Your task to perform on an android device: Go to Google Image 0: 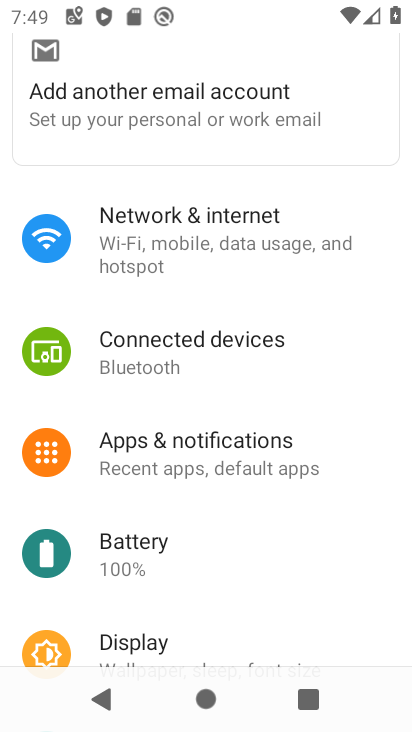
Step 0: press home button
Your task to perform on an android device: Go to Google Image 1: 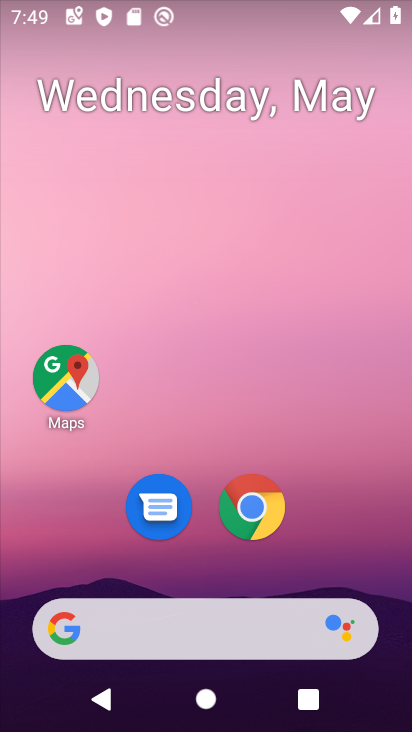
Step 1: drag from (199, 542) to (192, 191)
Your task to perform on an android device: Go to Google Image 2: 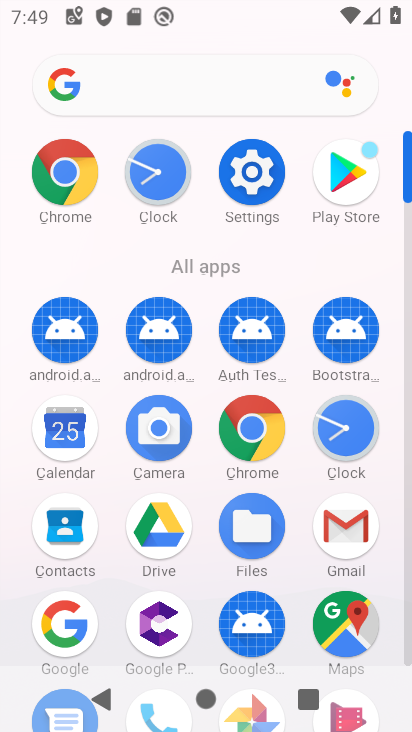
Step 2: click (60, 613)
Your task to perform on an android device: Go to Google Image 3: 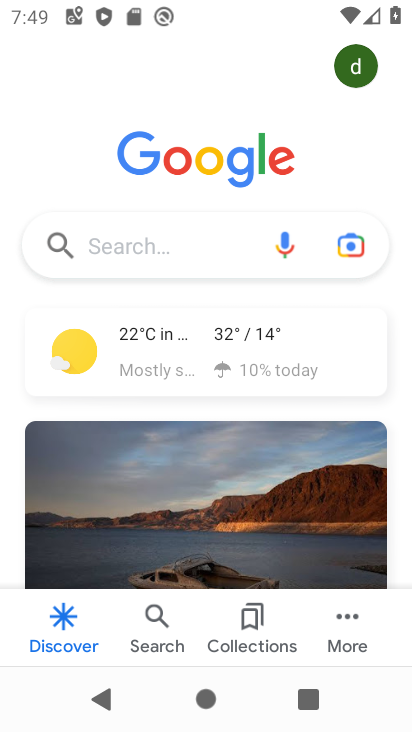
Step 3: task complete